Your task to perform on an android device: check data usage Image 0: 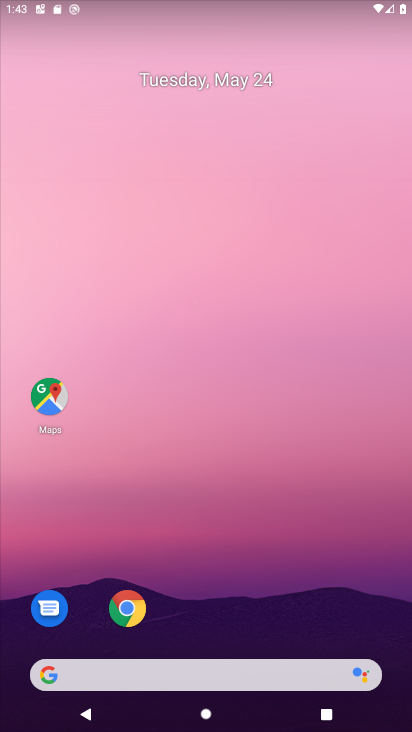
Step 0: drag from (338, 616) to (246, 116)
Your task to perform on an android device: check data usage Image 1: 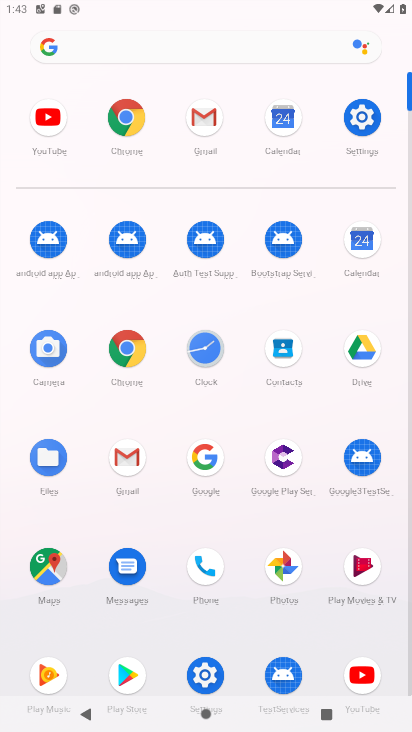
Step 1: click (366, 138)
Your task to perform on an android device: check data usage Image 2: 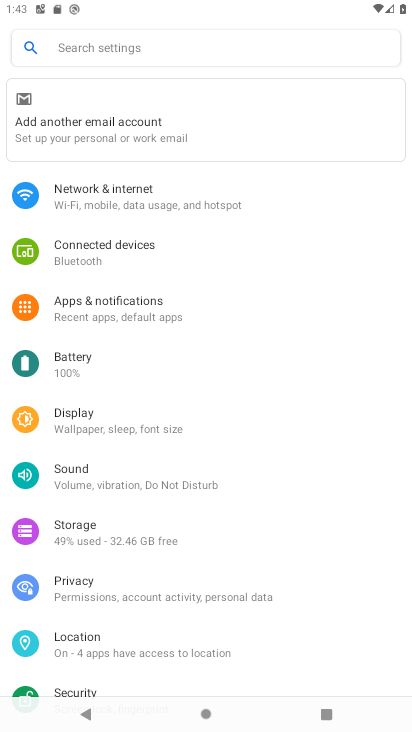
Step 2: click (131, 221)
Your task to perform on an android device: check data usage Image 3: 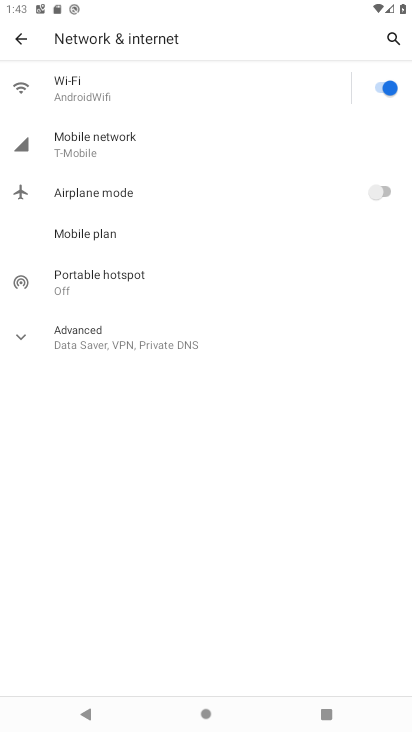
Step 3: click (156, 146)
Your task to perform on an android device: check data usage Image 4: 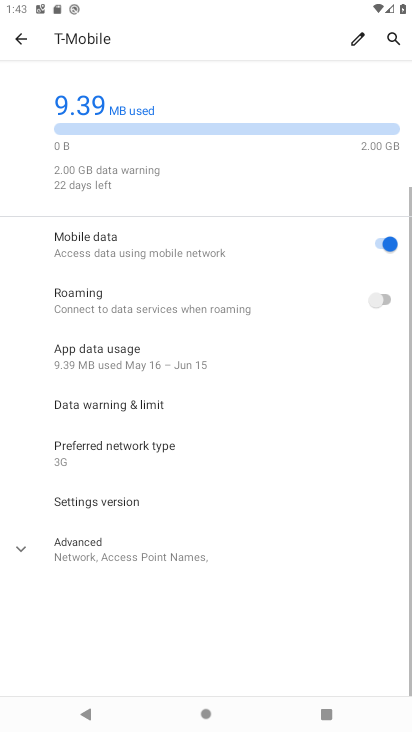
Step 4: task complete